Your task to perform on an android device: Go to ESPN.com Image 0: 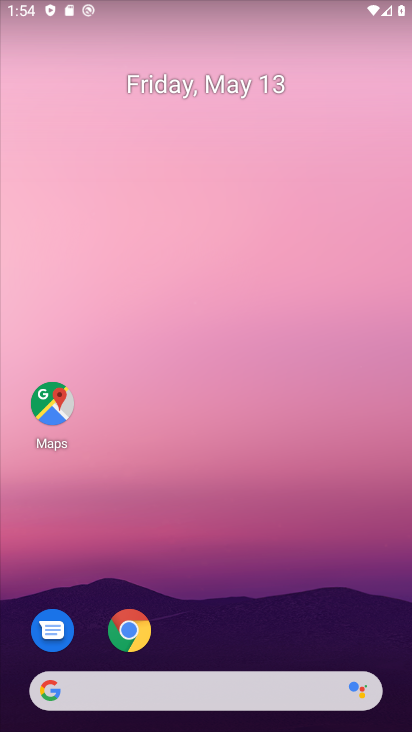
Step 0: click (126, 636)
Your task to perform on an android device: Go to ESPN.com Image 1: 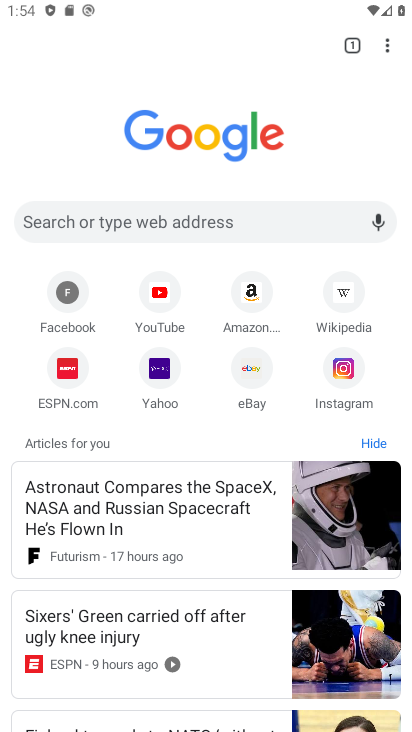
Step 1: click (70, 380)
Your task to perform on an android device: Go to ESPN.com Image 2: 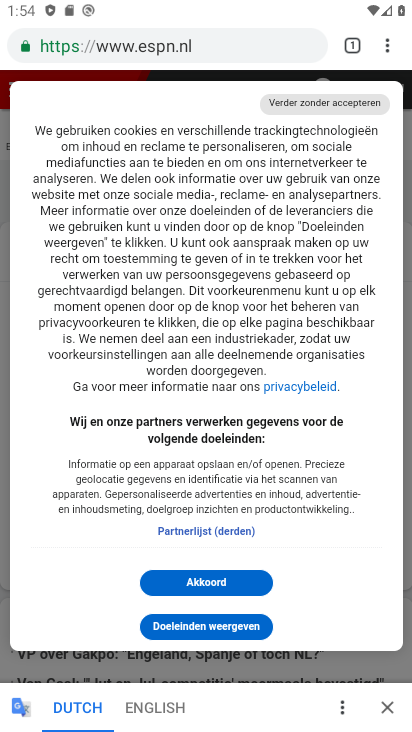
Step 2: task complete